Your task to perform on an android device: Open Yahoo.com Image 0: 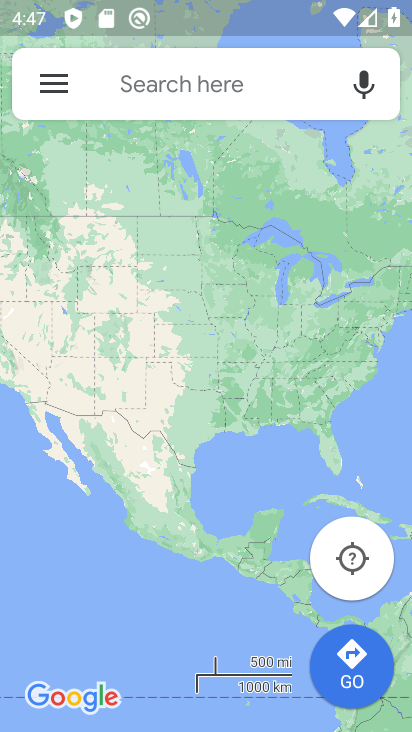
Step 0: press home button
Your task to perform on an android device: Open Yahoo.com Image 1: 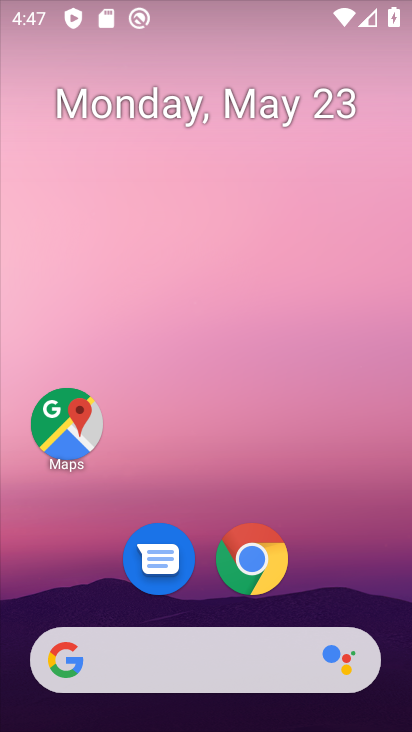
Step 1: drag from (177, 655) to (299, 20)
Your task to perform on an android device: Open Yahoo.com Image 2: 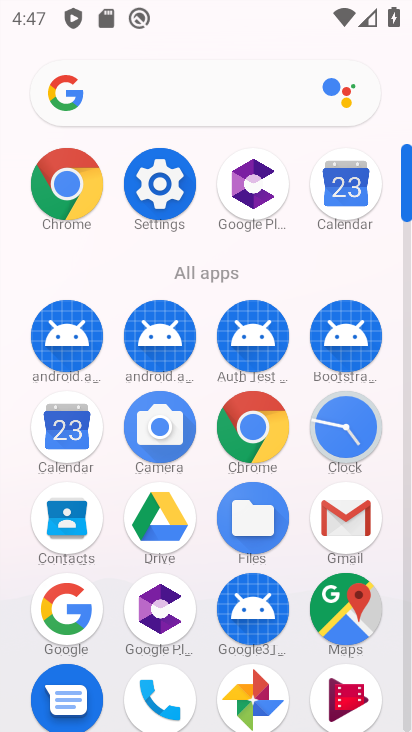
Step 2: click (252, 442)
Your task to perform on an android device: Open Yahoo.com Image 3: 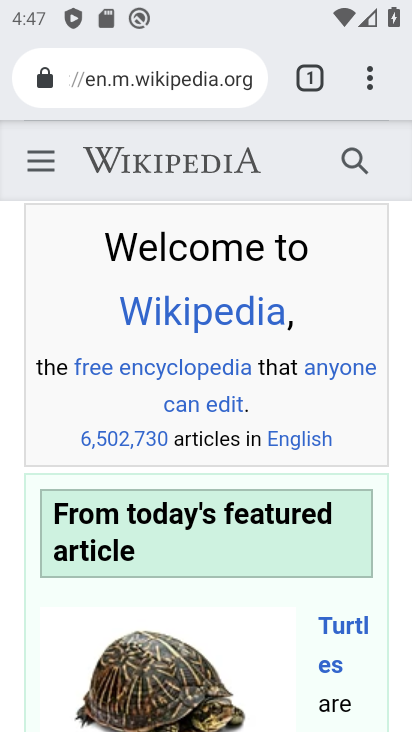
Step 3: click (173, 77)
Your task to perform on an android device: Open Yahoo.com Image 4: 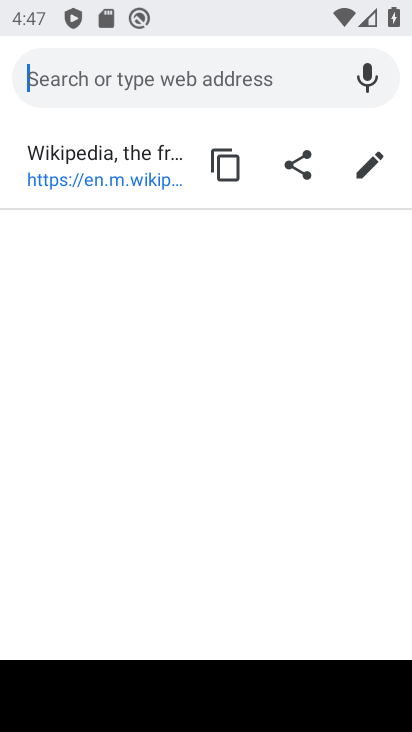
Step 4: type "yahoo.com"
Your task to perform on an android device: Open Yahoo.com Image 5: 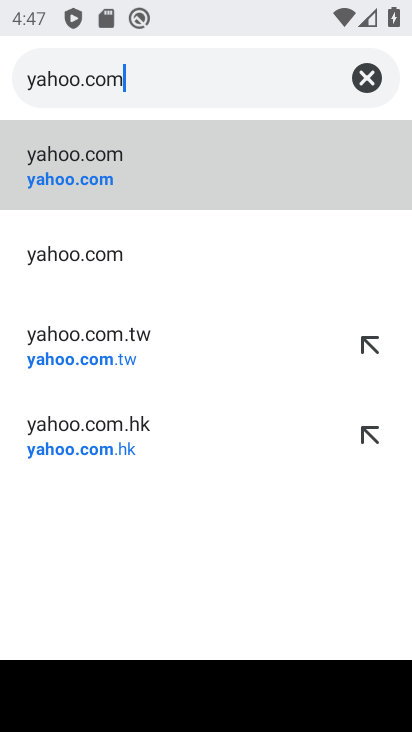
Step 5: click (156, 163)
Your task to perform on an android device: Open Yahoo.com Image 6: 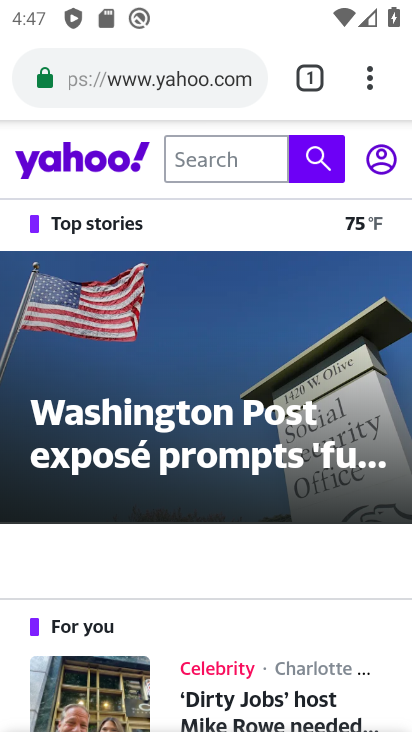
Step 6: task complete